Your task to perform on an android device: Open settings on Google Maps Image 0: 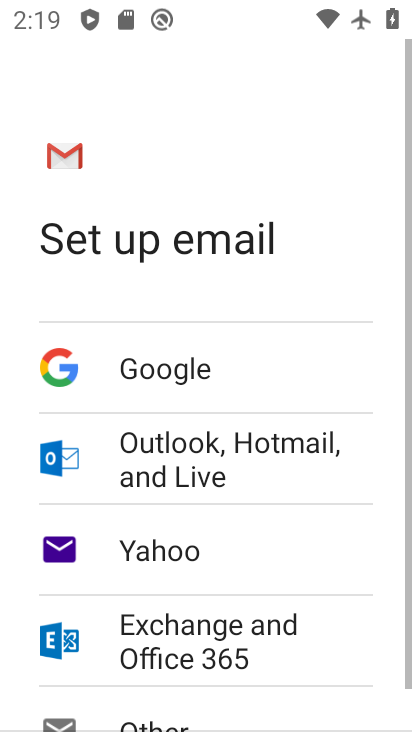
Step 0: press back button
Your task to perform on an android device: Open settings on Google Maps Image 1: 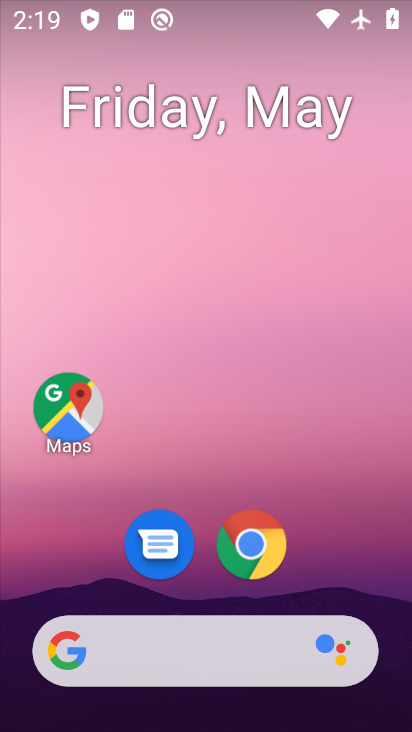
Step 1: click (60, 412)
Your task to perform on an android device: Open settings on Google Maps Image 2: 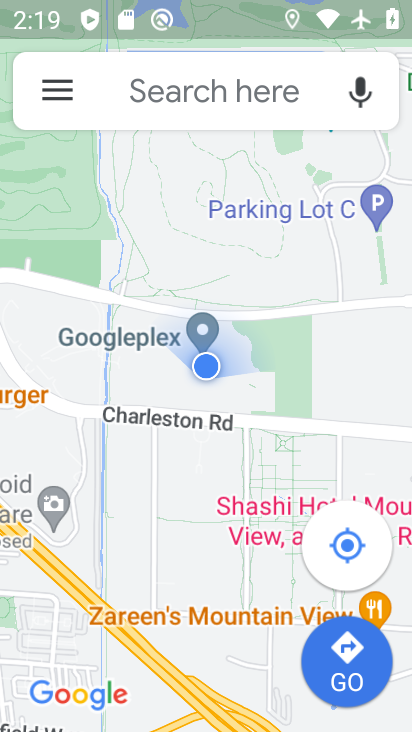
Step 2: task complete